Your task to perform on an android device: Open the calendar app, open the side menu, and click the "Day" option Image 0: 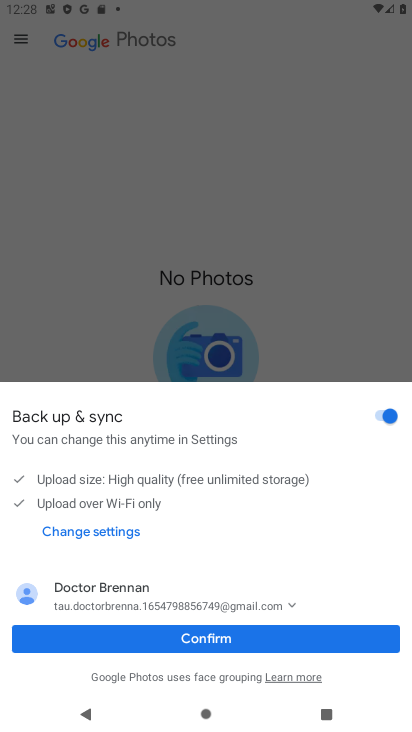
Step 0: press home button
Your task to perform on an android device: Open the calendar app, open the side menu, and click the "Day" option Image 1: 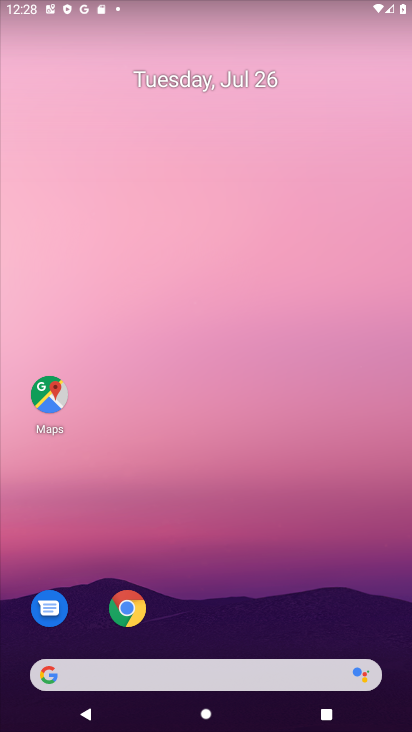
Step 1: click (200, 77)
Your task to perform on an android device: Open the calendar app, open the side menu, and click the "Day" option Image 2: 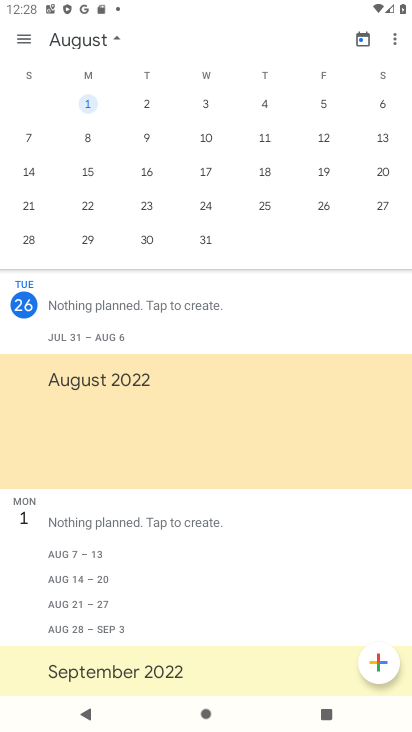
Step 2: click (34, 39)
Your task to perform on an android device: Open the calendar app, open the side menu, and click the "Day" option Image 3: 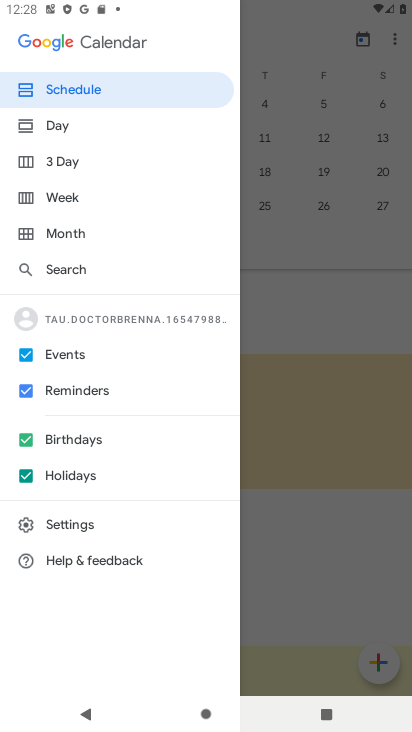
Step 3: click (75, 121)
Your task to perform on an android device: Open the calendar app, open the side menu, and click the "Day" option Image 4: 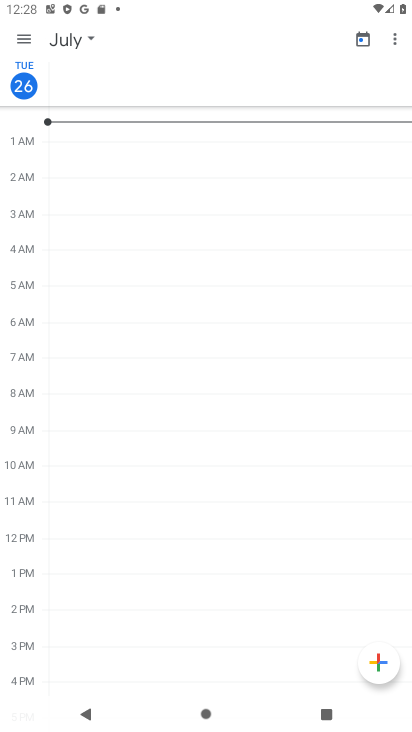
Step 4: task complete